Your task to perform on an android device: Toggle the flashlight Image 0: 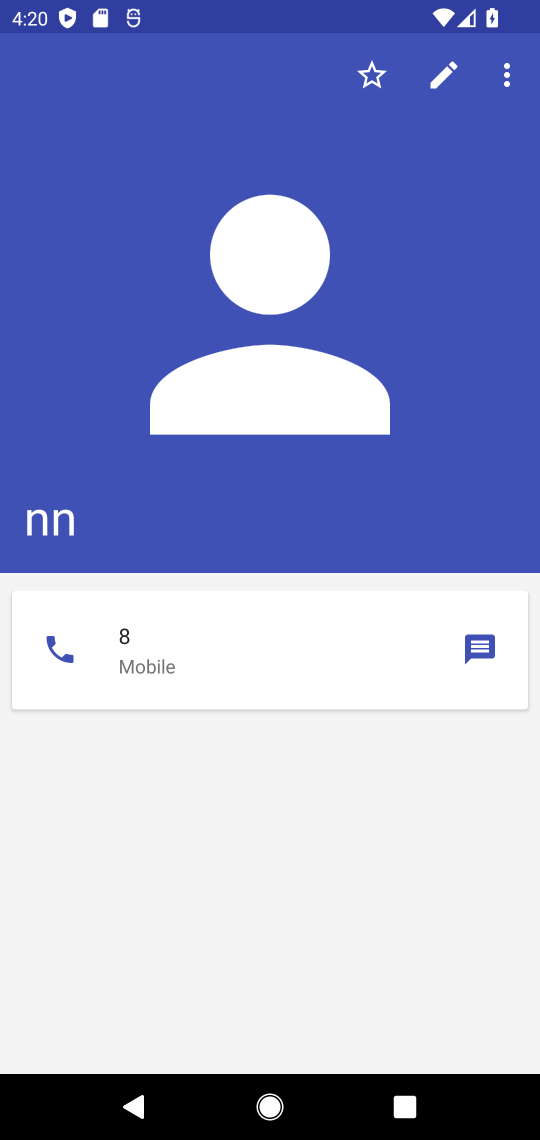
Step 0: press home button
Your task to perform on an android device: Toggle the flashlight Image 1: 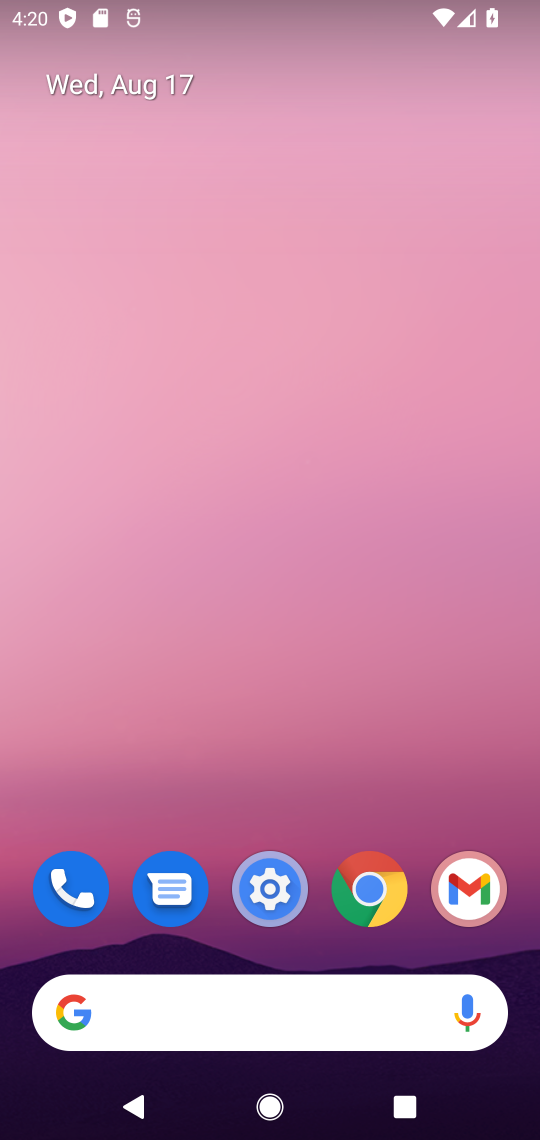
Step 1: click (264, 886)
Your task to perform on an android device: Toggle the flashlight Image 2: 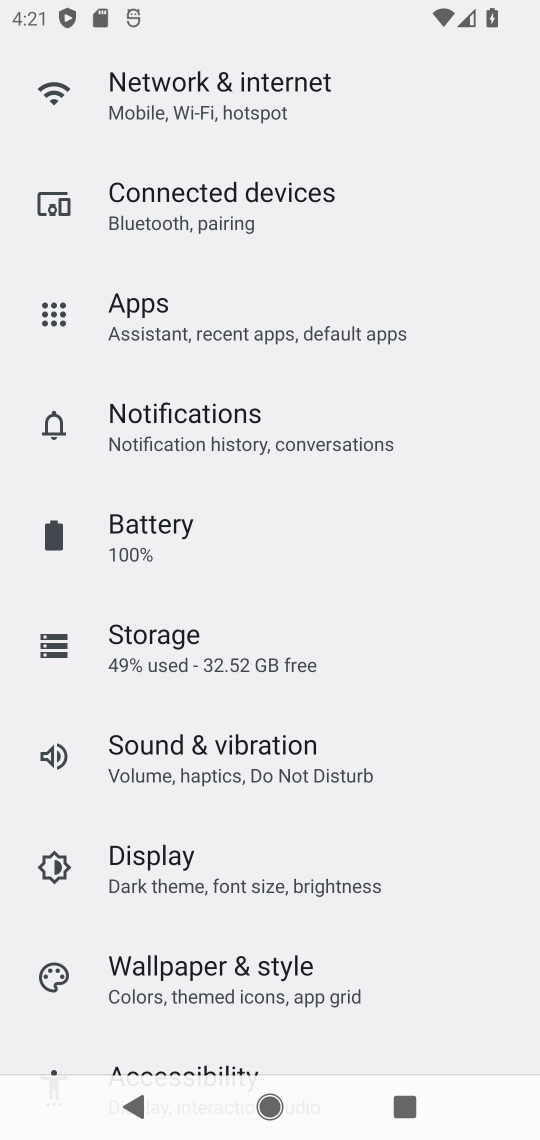
Step 2: click (161, 853)
Your task to perform on an android device: Toggle the flashlight Image 3: 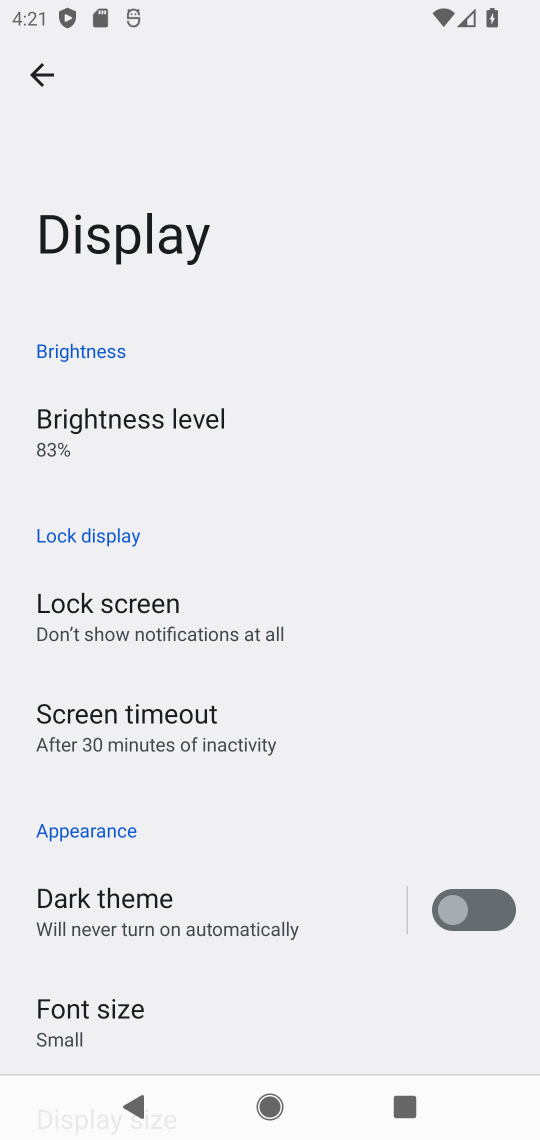
Step 3: task complete